Your task to perform on an android device: Open Google Chrome Image 0: 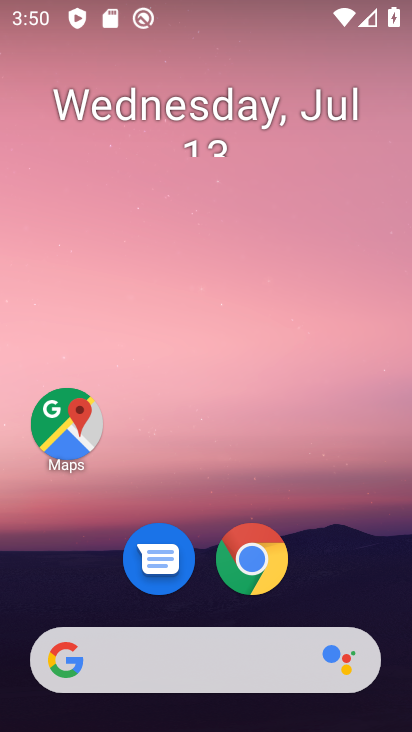
Step 0: drag from (224, 669) to (123, 256)
Your task to perform on an android device: Open Google Chrome Image 1: 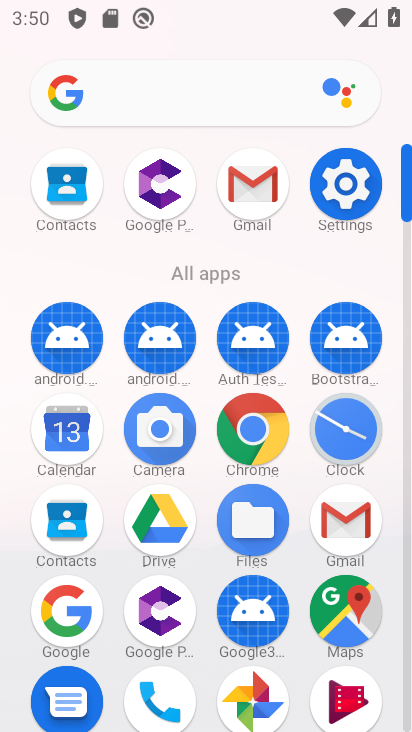
Step 1: drag from (164, 539) to (165, 421)
Your task to perform on an android device: Open Google Chrome Image 2: 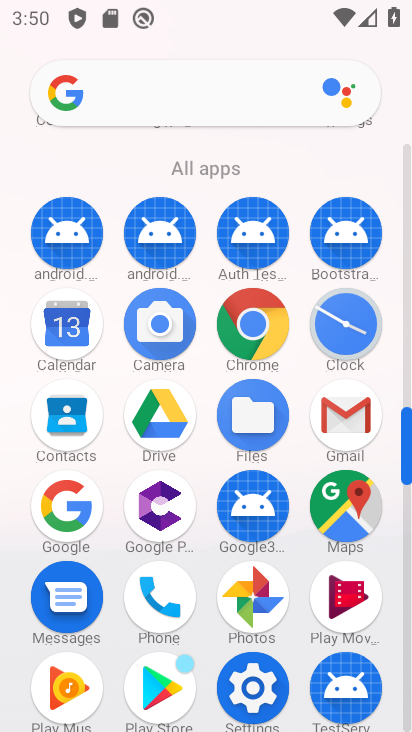
Step 2: click (231, 306)
Your task to perform on an android device: Open Google Chrome Image 3: 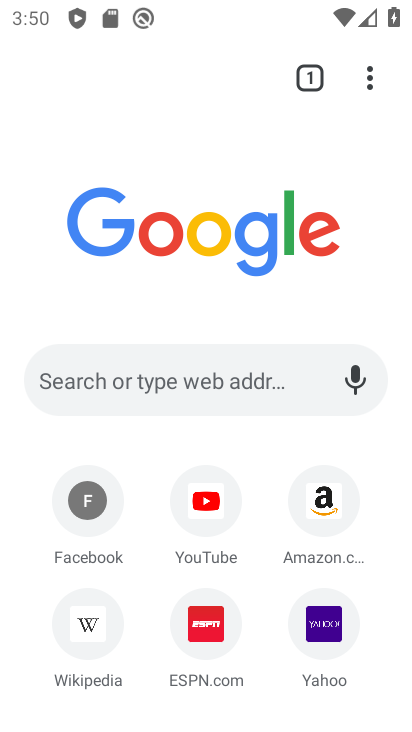
Step 3: task complete